Your task to perform on an android device: Open the web browser Image 0: 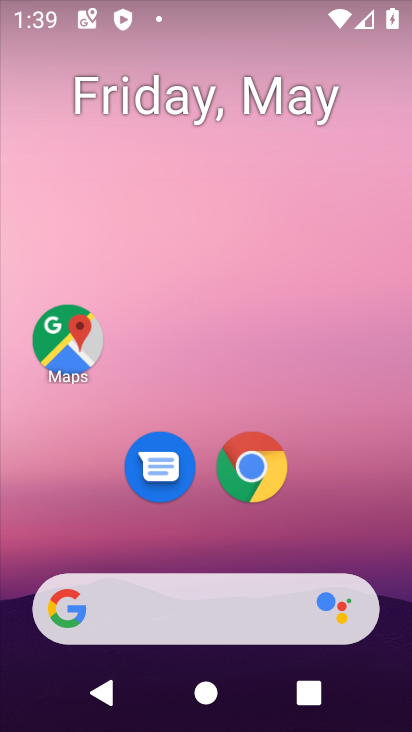
Step 0: drag from (346, 452) to (252, 5)
Your task to perform on an android device: Open the web browser Image 1: 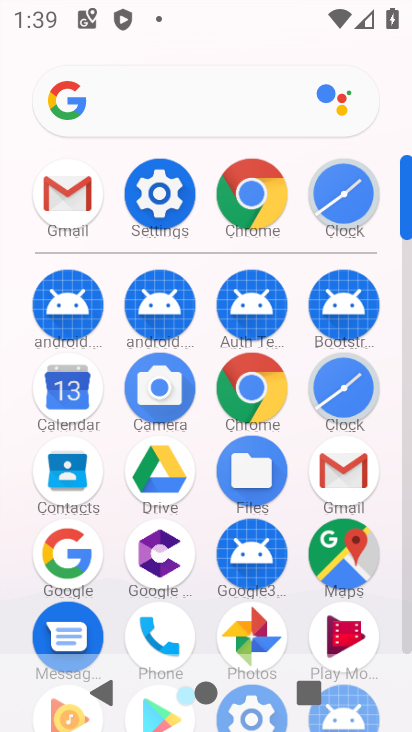
Step 1: click (225, 201)
Your task to perform on an android device: Open the web browser Image 2: 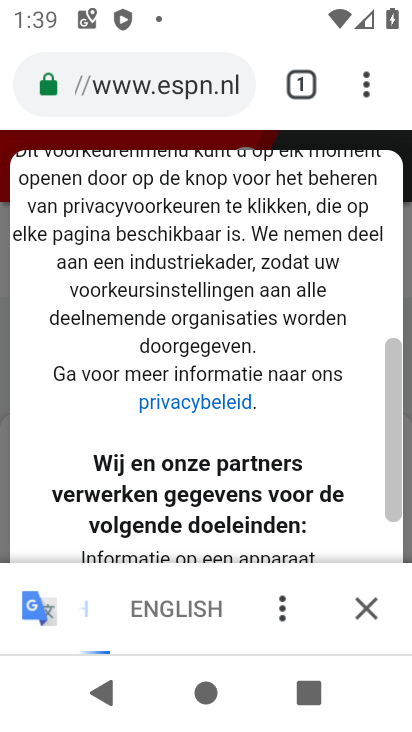
Step 2: task complete